Your task to perform on an android device: Go to Wikipedia Image 0: 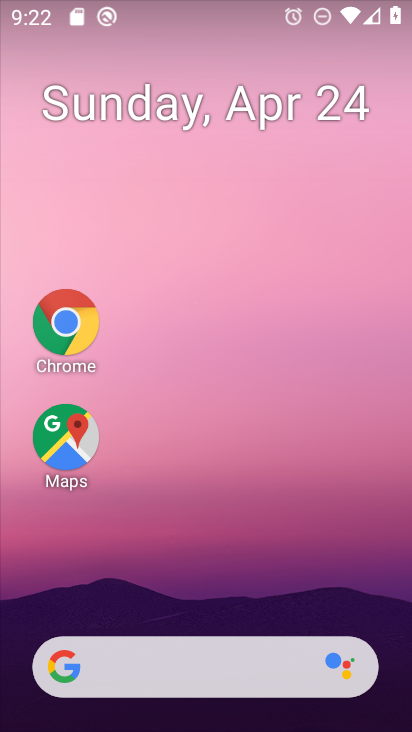
Step 0: click (65, 322)
Your task to perform on an android device: Go to Wikipedia Image 1: 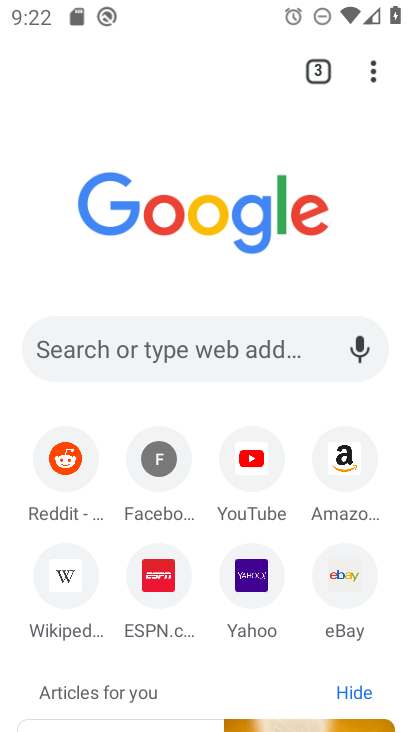
Step 1: click (54, 566)
Your task to perform on an android device: Go to Wikipedia Image 2: 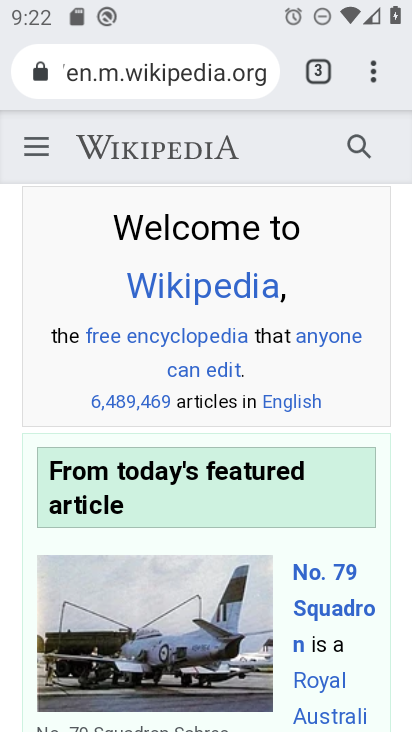
Step 2: task complete